Your task to perform on an android device: Open wifi settings Image 0: 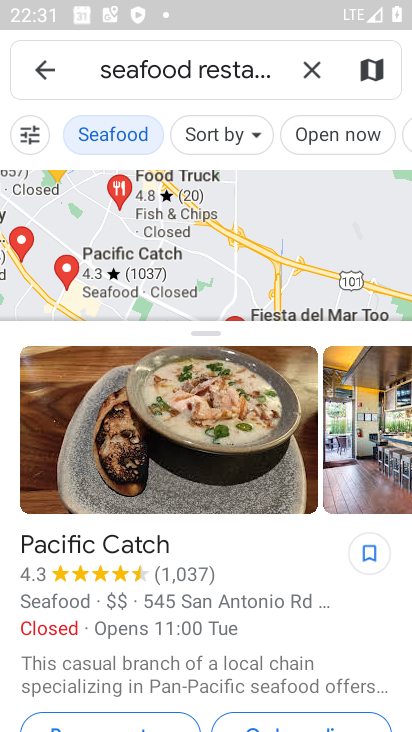
Step 0: drag from (212, 25) to (246, 600)
Your task to perform on an android device: Open wifi settings Image 1: 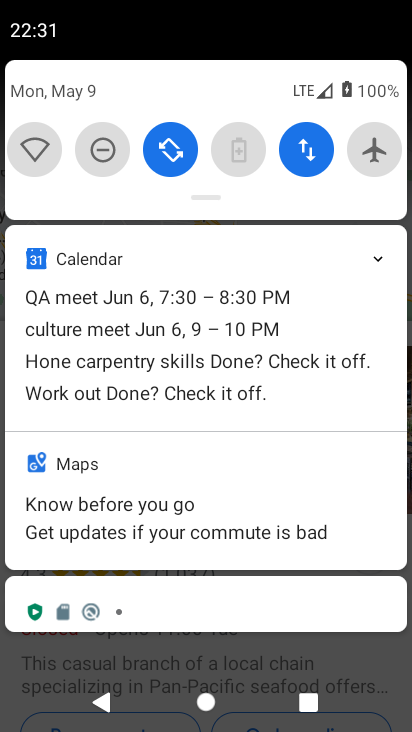
Step 1: click (22, 159)
Your task to perform on an android device: Open wifi settings Image 2: 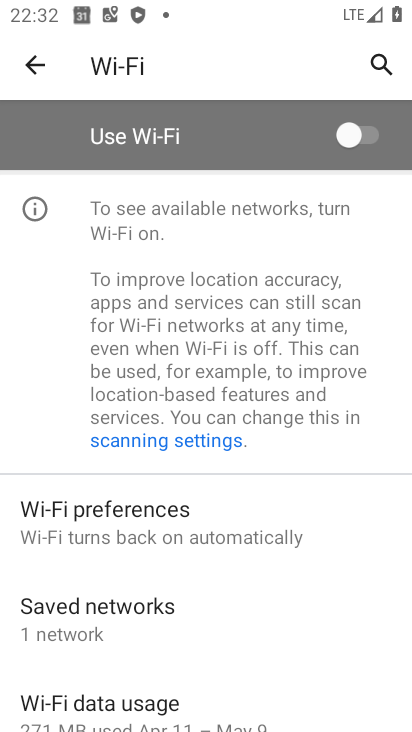
Step 2: task complete